Your task to perform on an android device: toggle pop-ups in chrome Image 0: 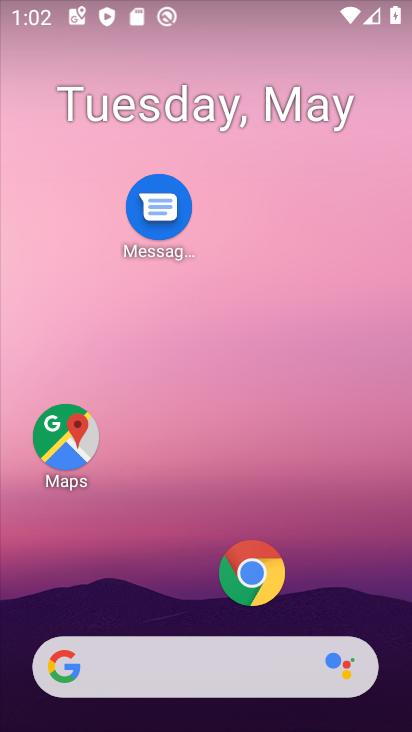
Step 0: click (246, 588)
Your task to perform on an android device: toggle pop-ups in chrome Image 1: 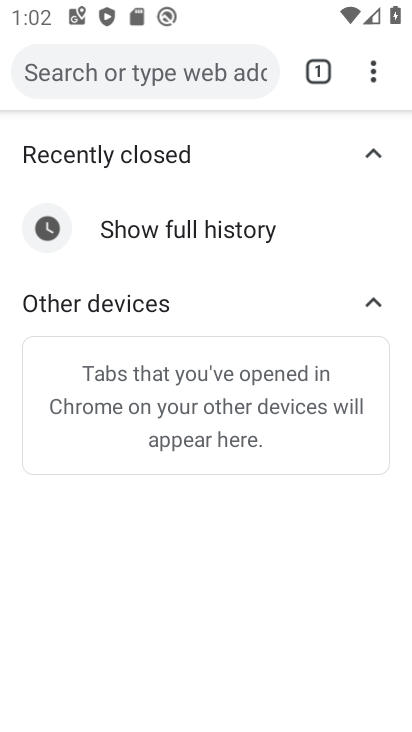
Step 1: click (368, 79)
Your task to perform on an android device: toggle pop-ups in chrome Image 2: 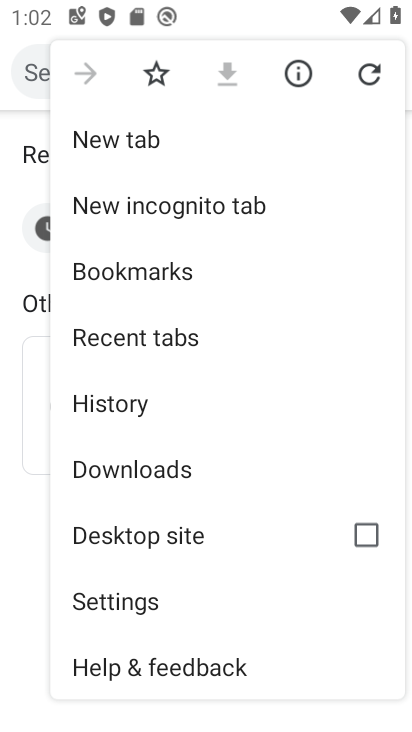
Step 2: click (150, 608)
Your task to perform on an android device: toggle pop-ups in chrome Image 3: 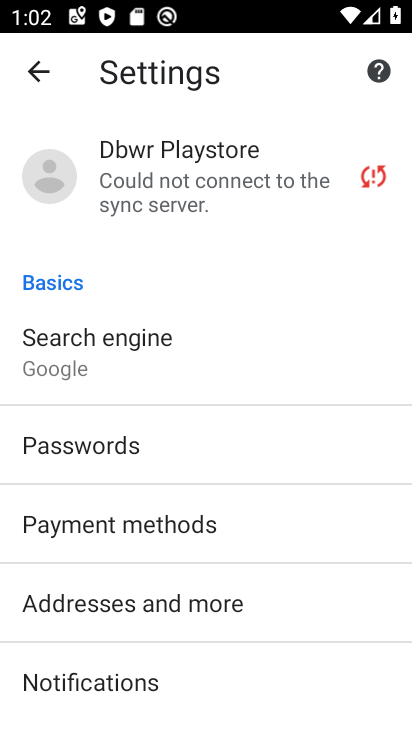
Step 3: drag from (117, 574) to (175, 247)
Your task to perform on an android device: toggle pop-ups in chrome Image 4: 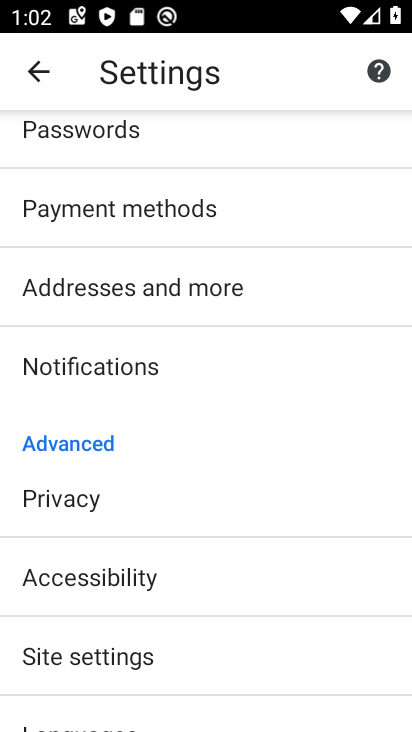
Step 4: drag from (133, 601) to (183, 456)
Your task to perform on an android device: toggle pop-ups in chrome Image 5: 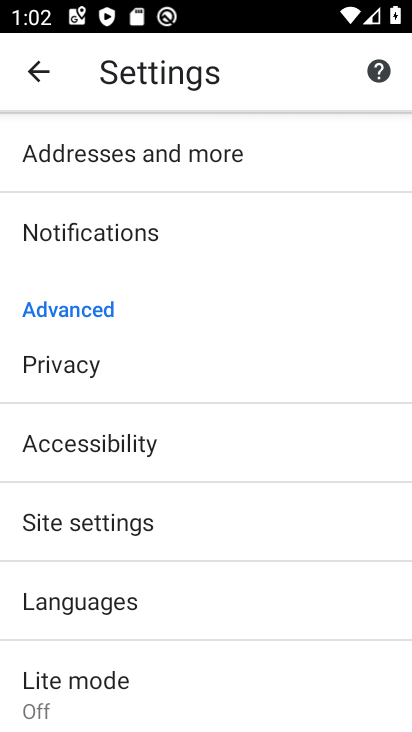
Step 5: click (138, 520)
Your task to perform on an android device: toggle pop-ups in chrome Image 6: 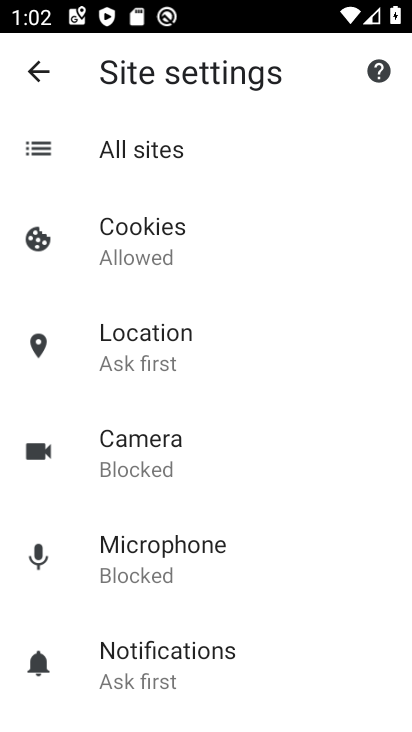
Step 6: drag from (138, 586) to (233, 305)
Your task to perform on an android device: toggle pop-ups in chrome Image 7: 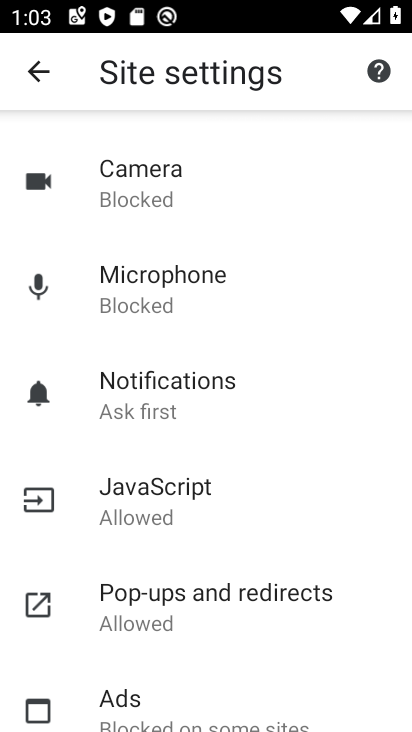
Step 7: click (159, 613)
Your task to perform on an android device: toggle pop-ups in chrome Image 8: 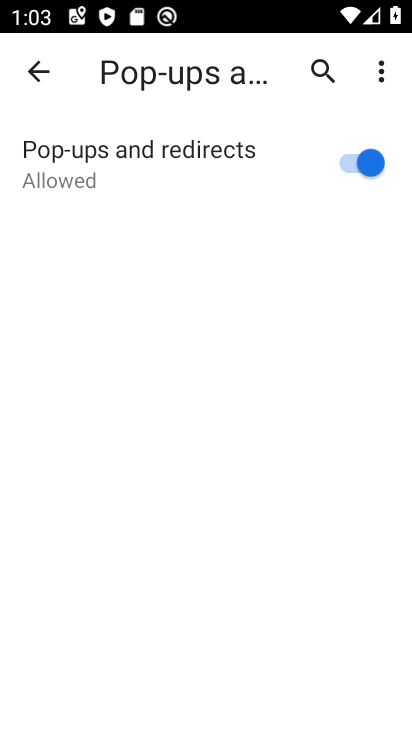
Step 8: click (327, 162)
Your task to perform on an android device: toggle pop-ups in chrome Image 9: 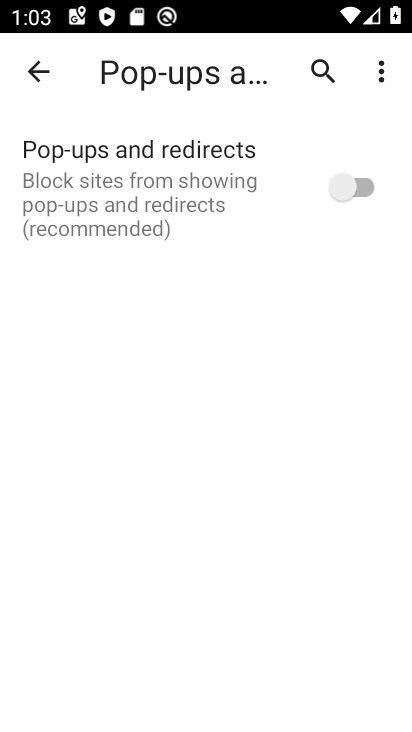
Step 9: task complete